Your task to perform on an android device: Go to Google maps Image 0: 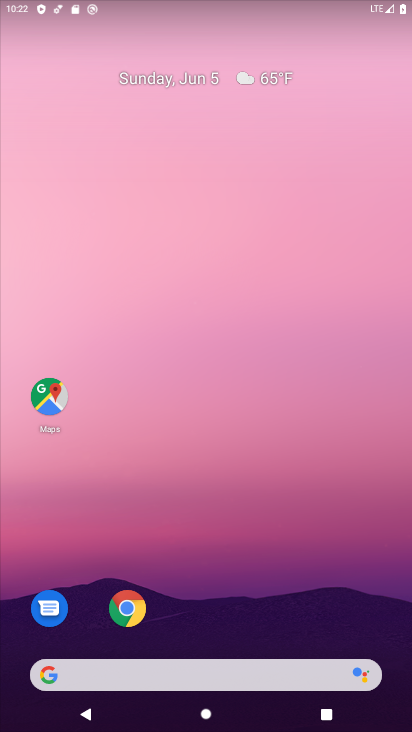
Step 0: click (35, 419)
Your task to perform on an android device: Go to Google maps Image 1: 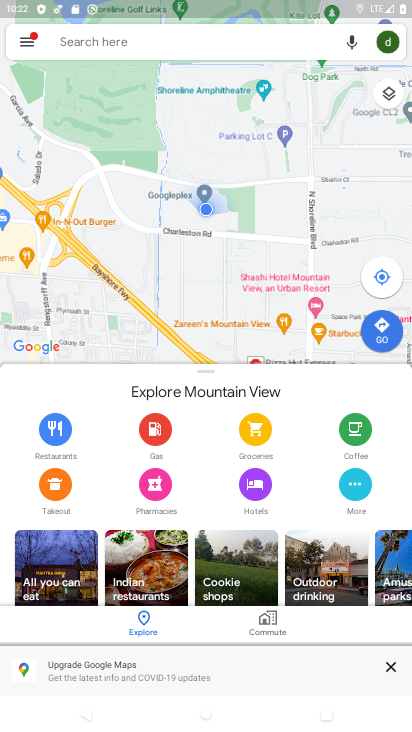
Step 1: task complete